Your task to perform on an android device: Open calendar and show me the third week of next month Image 0: 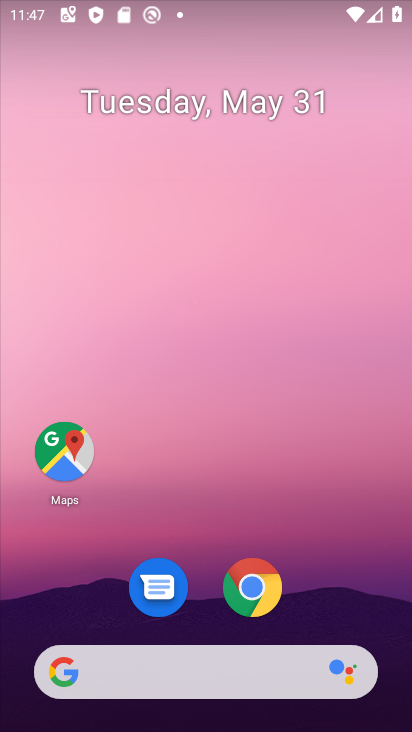
Step 0: drag from (298, 536) to (395, 4)
Your task to perform on an android device: Open calendar and show me the third week of next month Image 1: 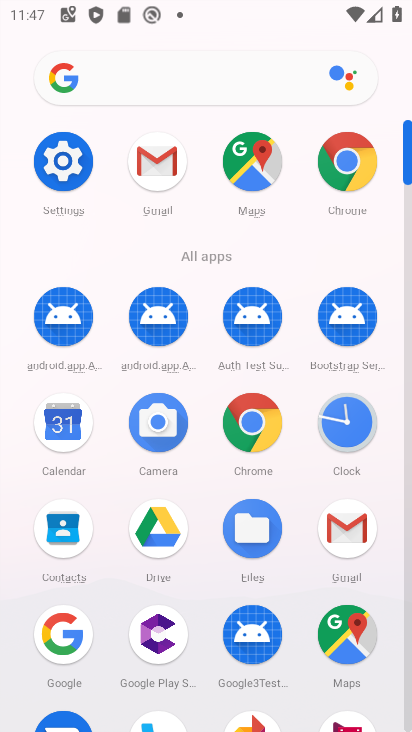
Step 1: click (61, 415)
Your task to perform on an android device: Open calendar and show me the third week of next month Image 2: 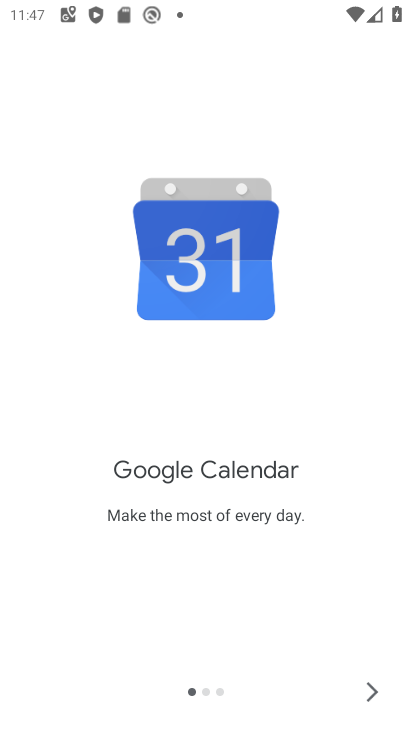
Step 2: click (366, 697)
Your task to perform on an android device: Open calendar and show me the third week of next month Image 3: 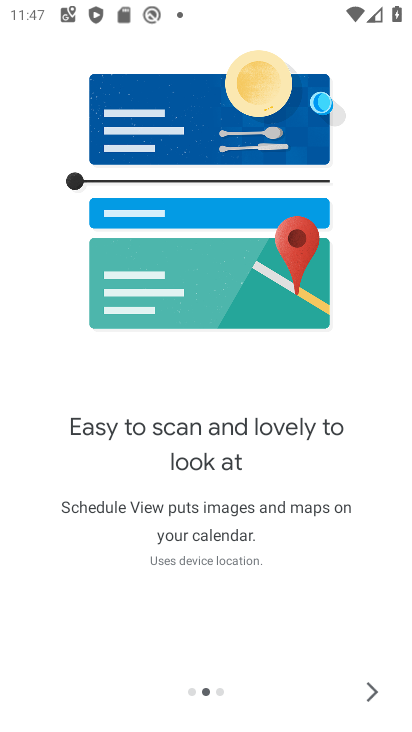
Step 3: click (366, 697)
Your task to perform on an android device: Open calendar and show me the third week of next month Image 4: 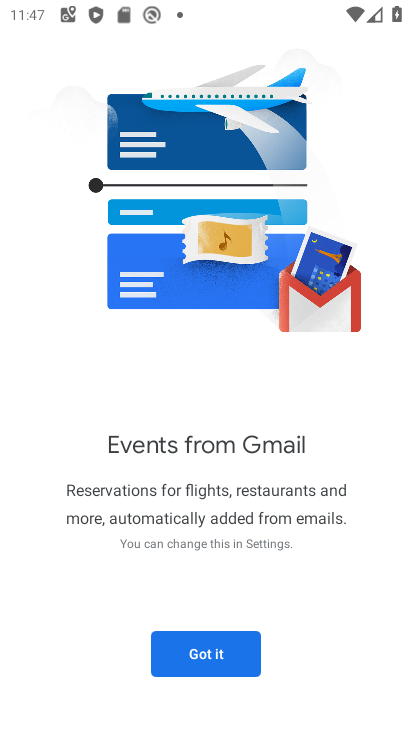
Step 4: click (232, 640)
Your task to perform on an android device: Open calendar and show me the third week of next month Image 5: 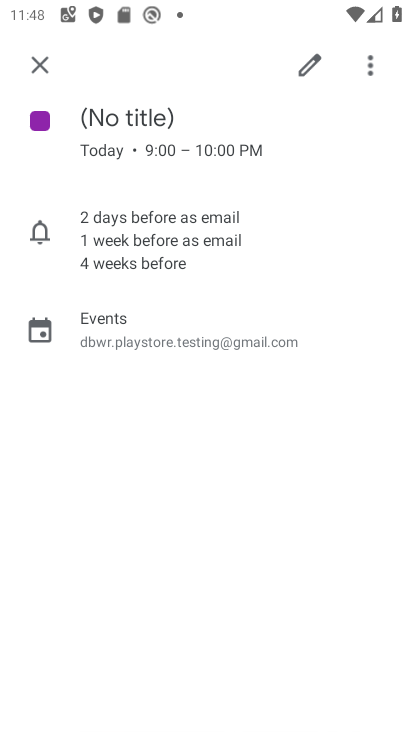
Step 5: click (39, 64)
Your task to perform on an android device: Open calendar and show me the third week of next month Image 6: 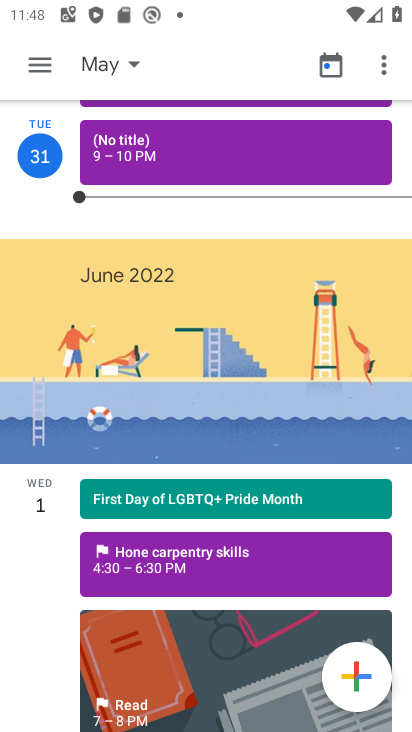
Step 6: click (92, 67)
Your task to perform on an android device: Open calendar and show me the third week of next month Image 7: 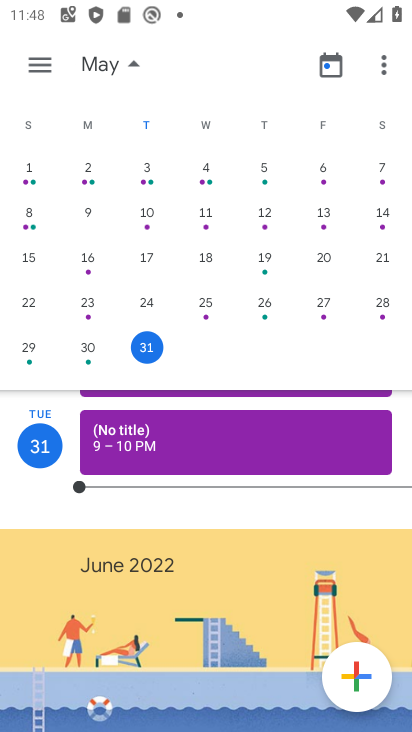
Step 7: drag from (317, 198) to (15, 252)
Your task to perform on an android device: Open calendar and show me the third week of next month Image 8: 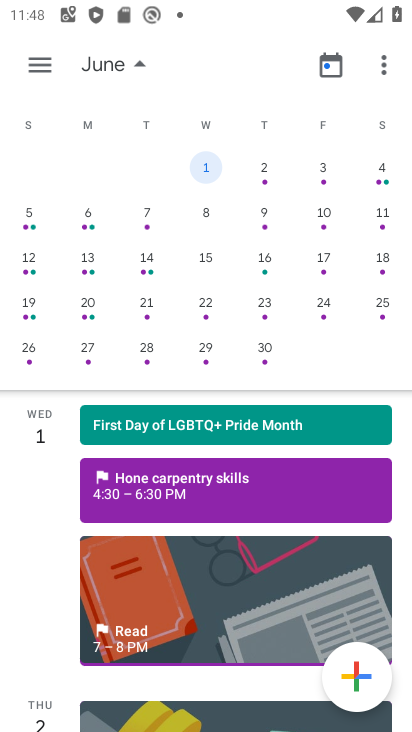
Step 8: click (84, 310)
Your task to perform on an android device: Open calendar and show me the third week of next month Image 9: 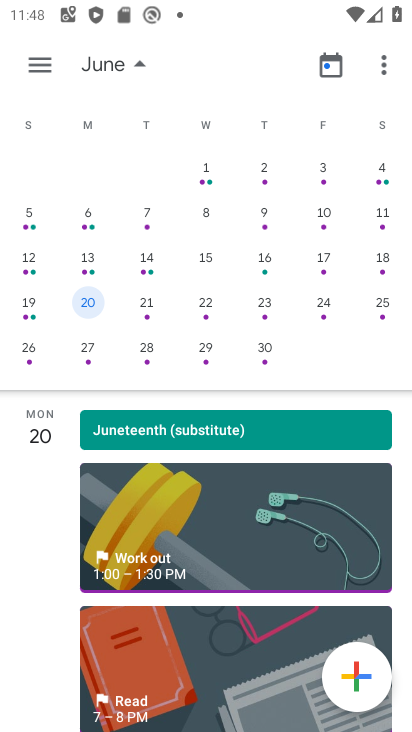
Step 9: click (49, 71)
Your task to perform on an android device: Open calendar and show me the third week of next month Image 10: 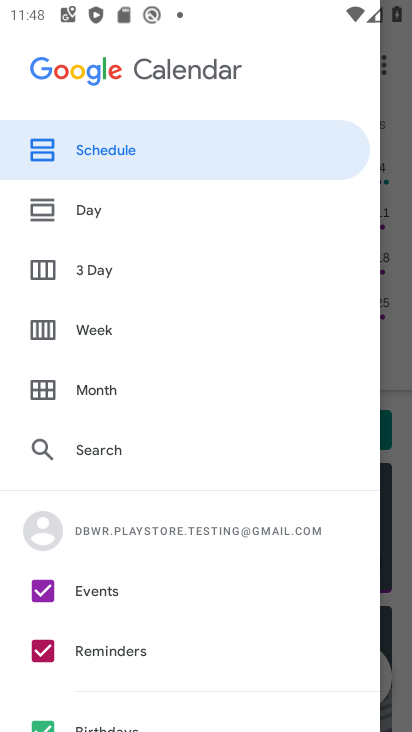
Step 10: click (141, 326)
Your task to perform on an android device: Open calendar and show me the third week of next month Image 11: 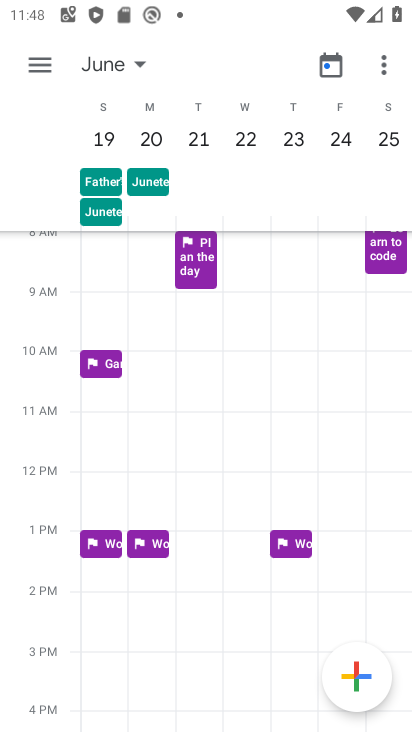
Step 11: task complete